Your task to perform on an android device: open a new tab in the chrome app Image 0: 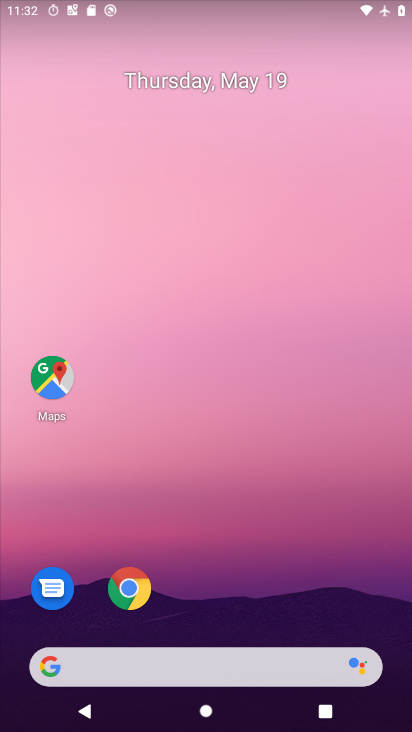
Step 0: press home button
Your task to perform on an android device: open a new tab in the chrome app Image 1: 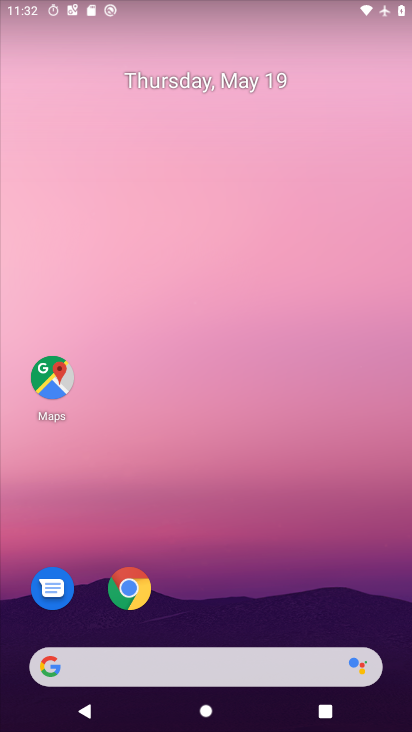
Step 1: click (132, 590)
Your task to perform on an android device: open a new tab in the chrome app Image 2: 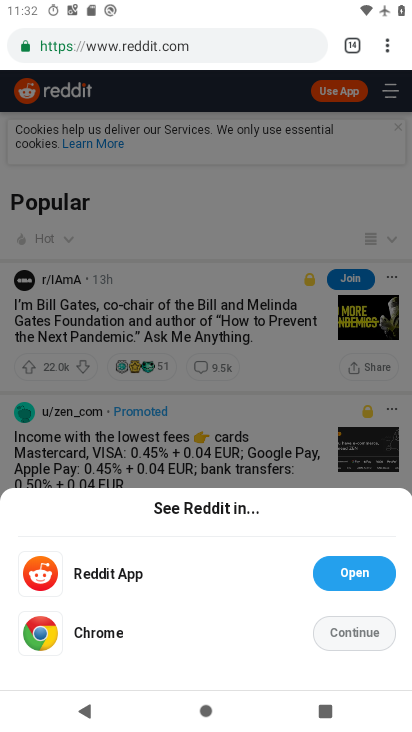
Step 2: task complete